Your task to perform on an android device: Open Chrome and go to settings Image 0: 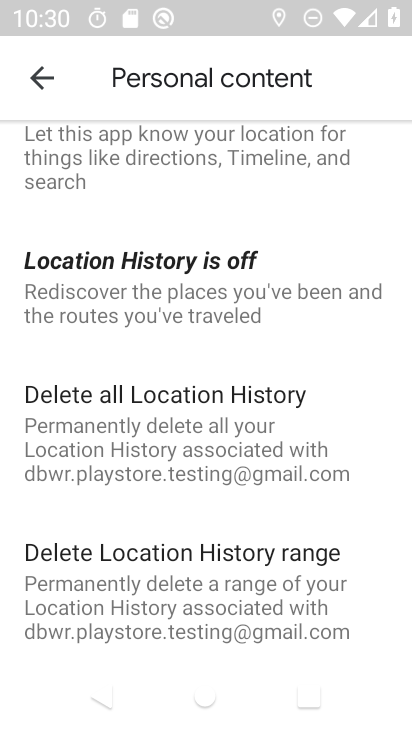
Step 0: press back button
Your task to perform on an android device: Open Chrome and go to settings Image 1: 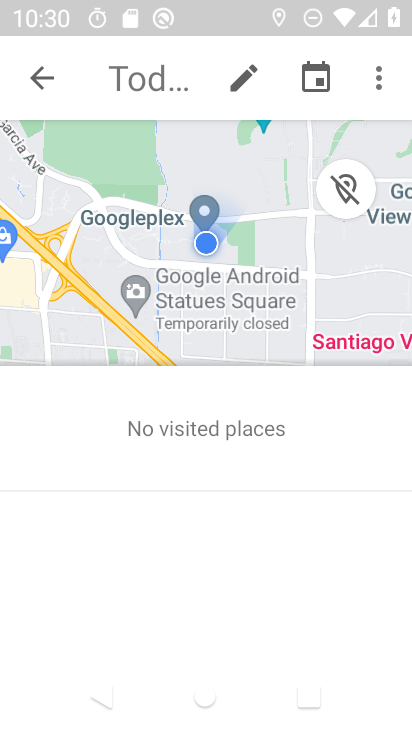
Step 1: press home button
Your task to perform on an android device: Open Chrome and go to settings Image 2: 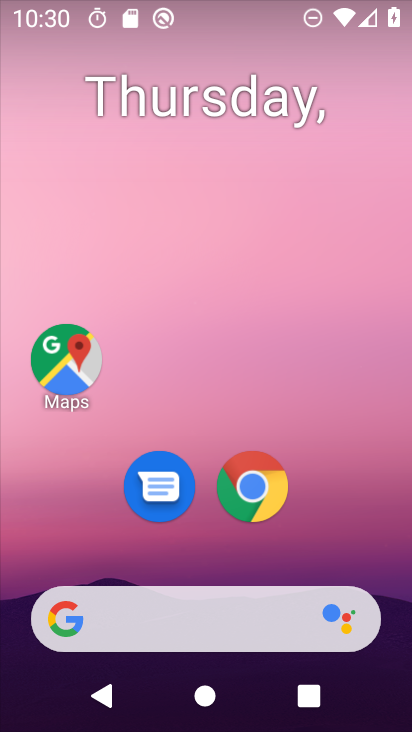
Step 2: click (263, 476)
Your task to perform on an android device: Open Chrome and go to settings Image 3: 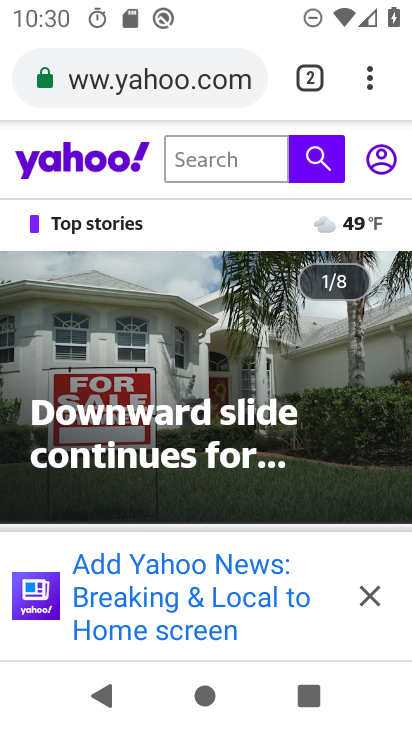
Step 3: task complete